Your task to perform on an android device: Go to Google maps Image 0: 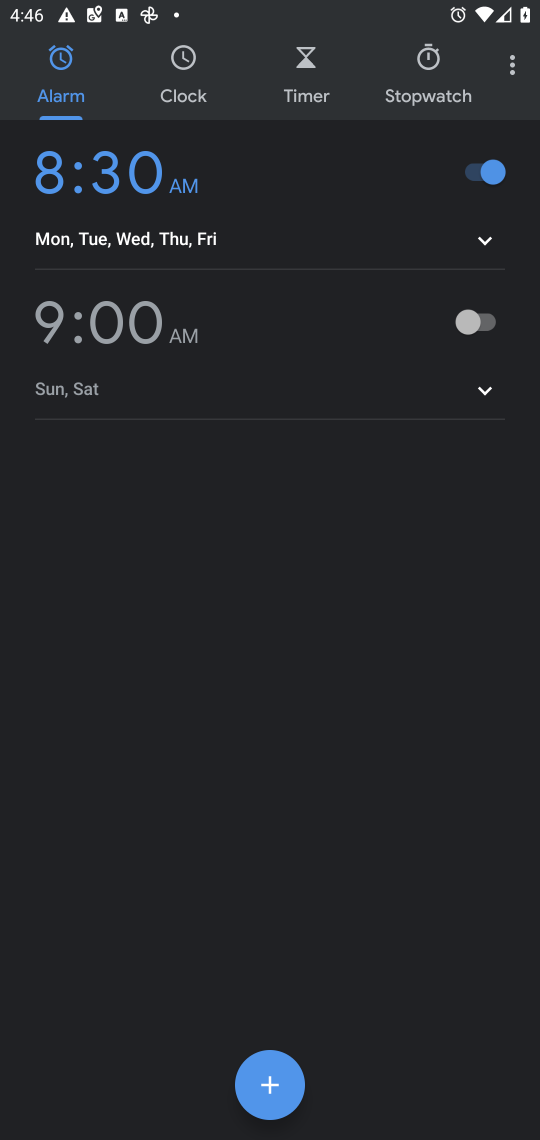
Step 0: press home button
Your task to perform on an android device: Go to Google maps Image 1: 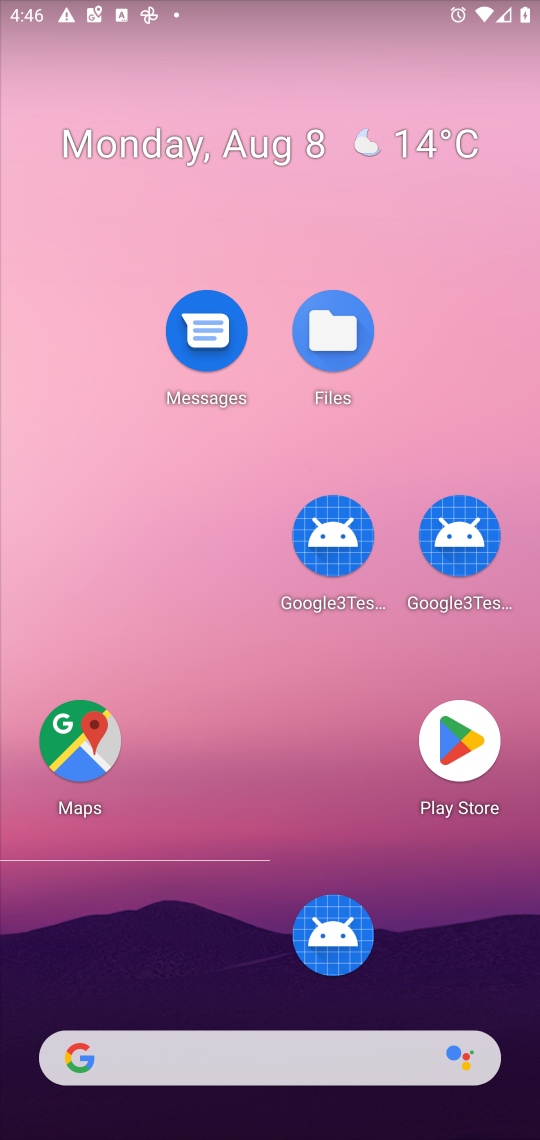
Step 1: drag from (254, 1046) to (318, 235)
Your task to perform on an android device: Go to Google maps Image 2: 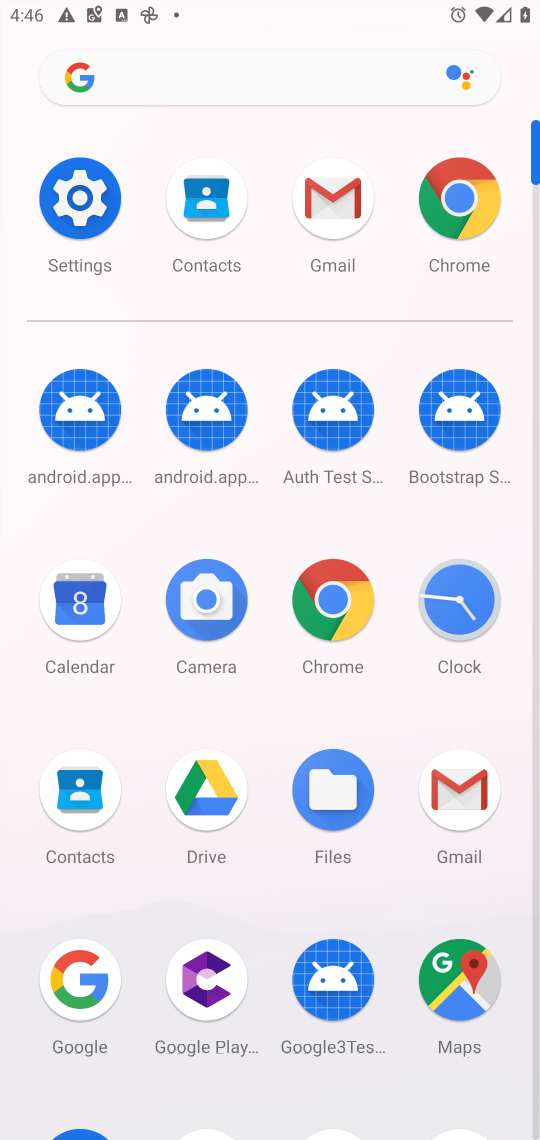
Step 2: click (488, 978)
Your task to perform on an android device: Go to Google maps Image 3: 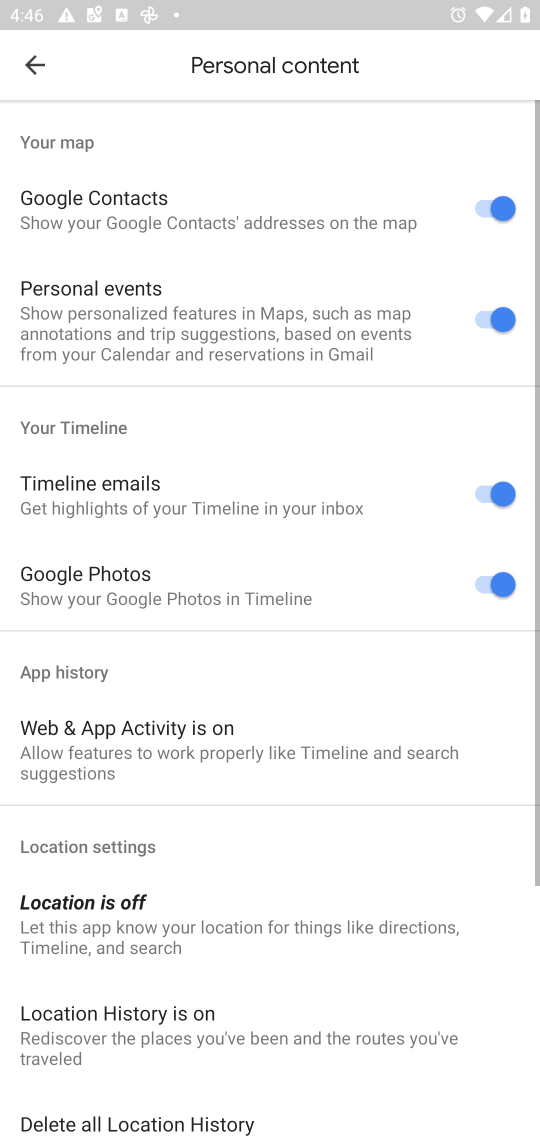
Step 3: task complete